Your task to perform on an android device: turn pop-ups on in chrome Image 0: 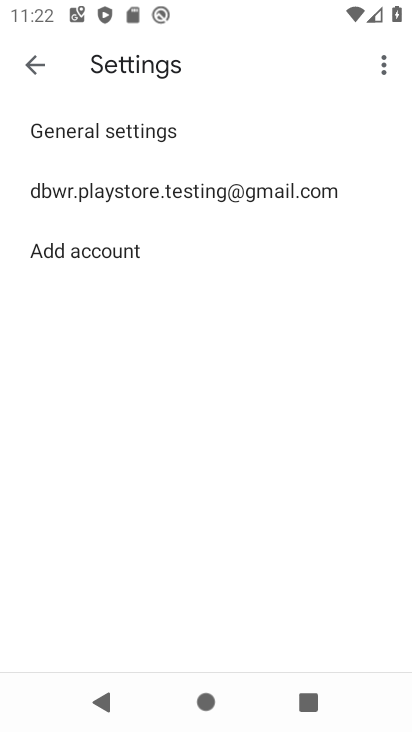
Step 0: press home button
Your task to perform on an android device: turn pop-ups on in chrome Image 1: 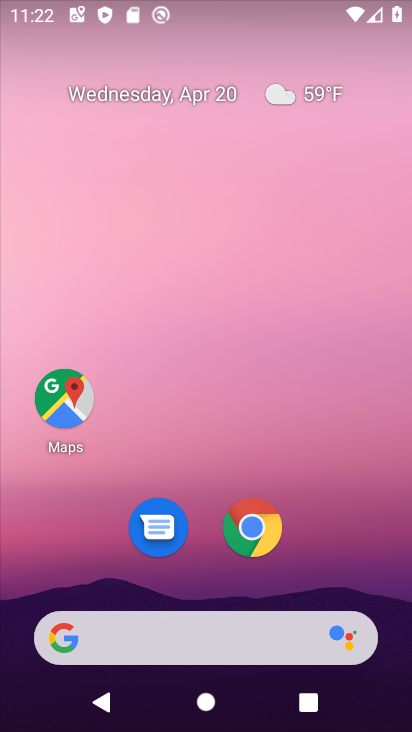
Step 1: drag from (346, 522) to (360, 117)
Your task to perform on an android device: turn pop-ups on in chrome Image 2: 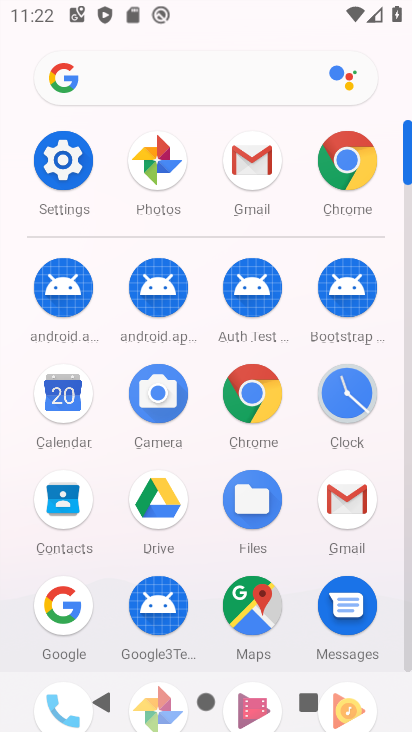
Step 2: click (259, 391)
Your task to perform on an android device: turn pop-ups on in chrome Image 3: 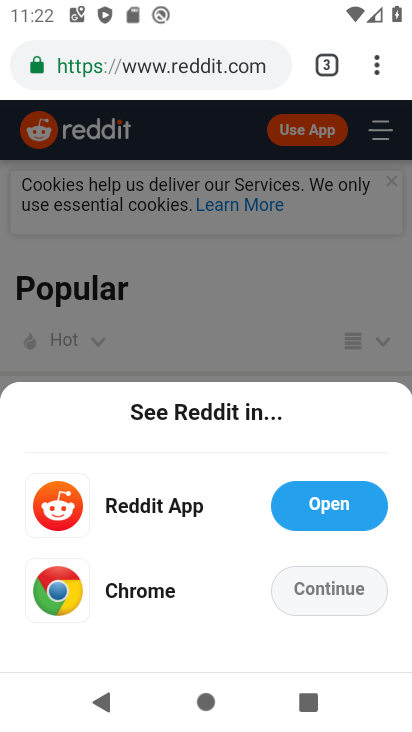
Step 3: task complete